Your task to perform on an android device: What's the weather like in Rio de Janeiro? Image 0: 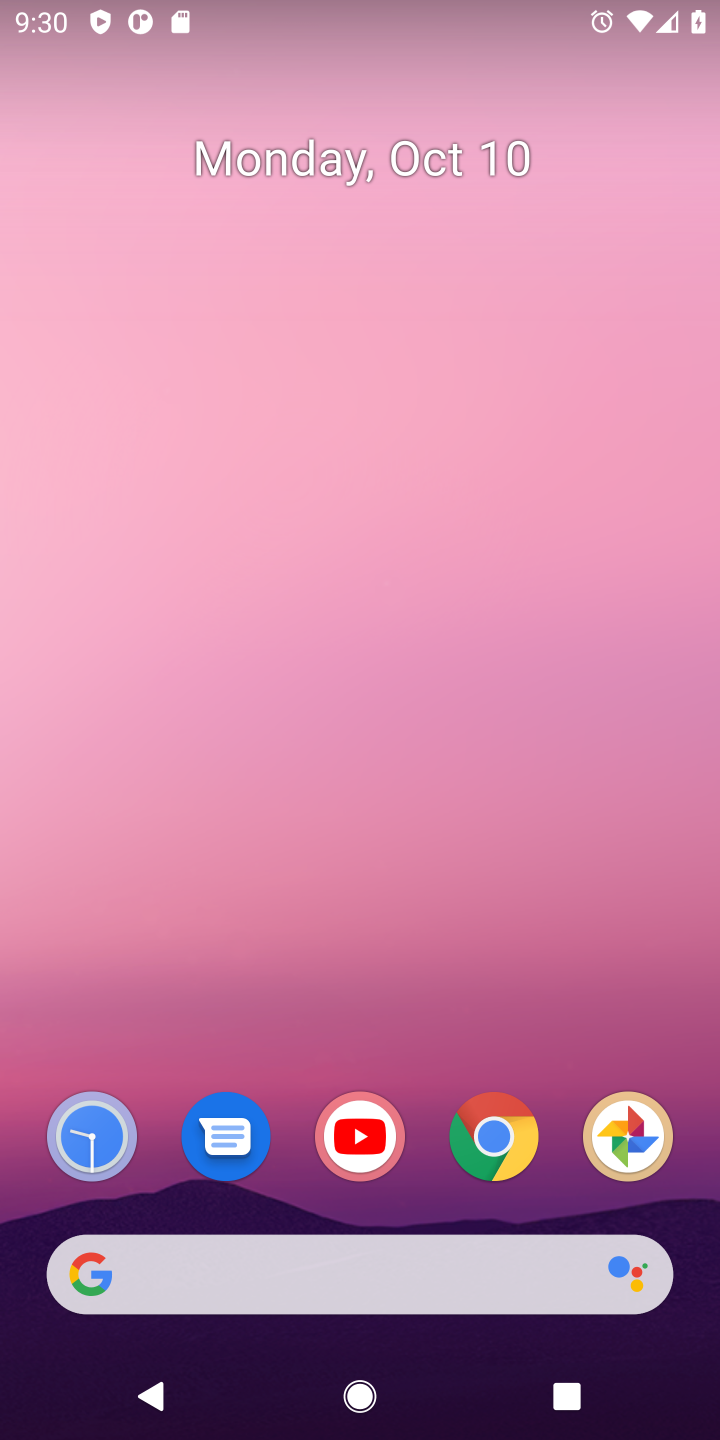
Step 0: click (505, 1122)
Your task to perform on an android device: What's the weather like in Rio de Janeiro? Image 1: 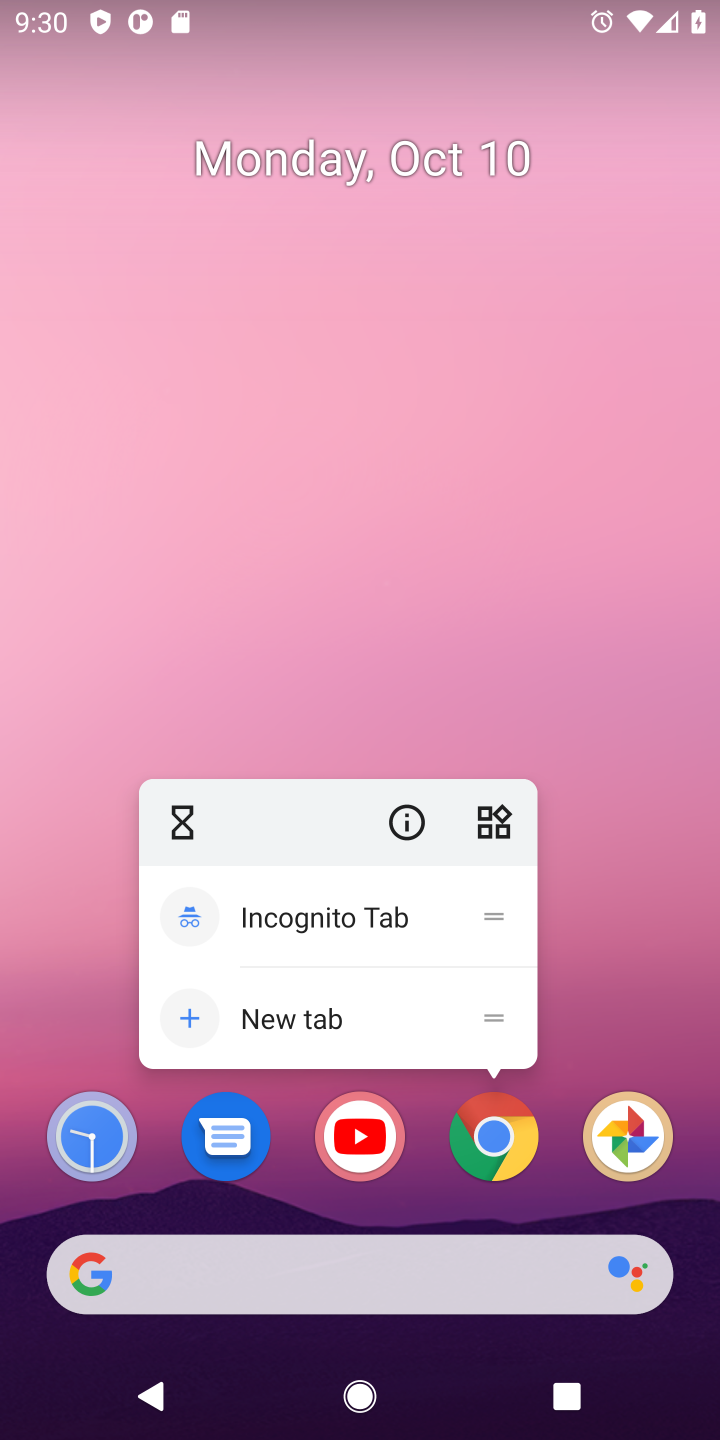
Step 1: click (512, 1155)
Your task to perform on an android device: What's the weather like in Rio de Janeiro? Image 2: 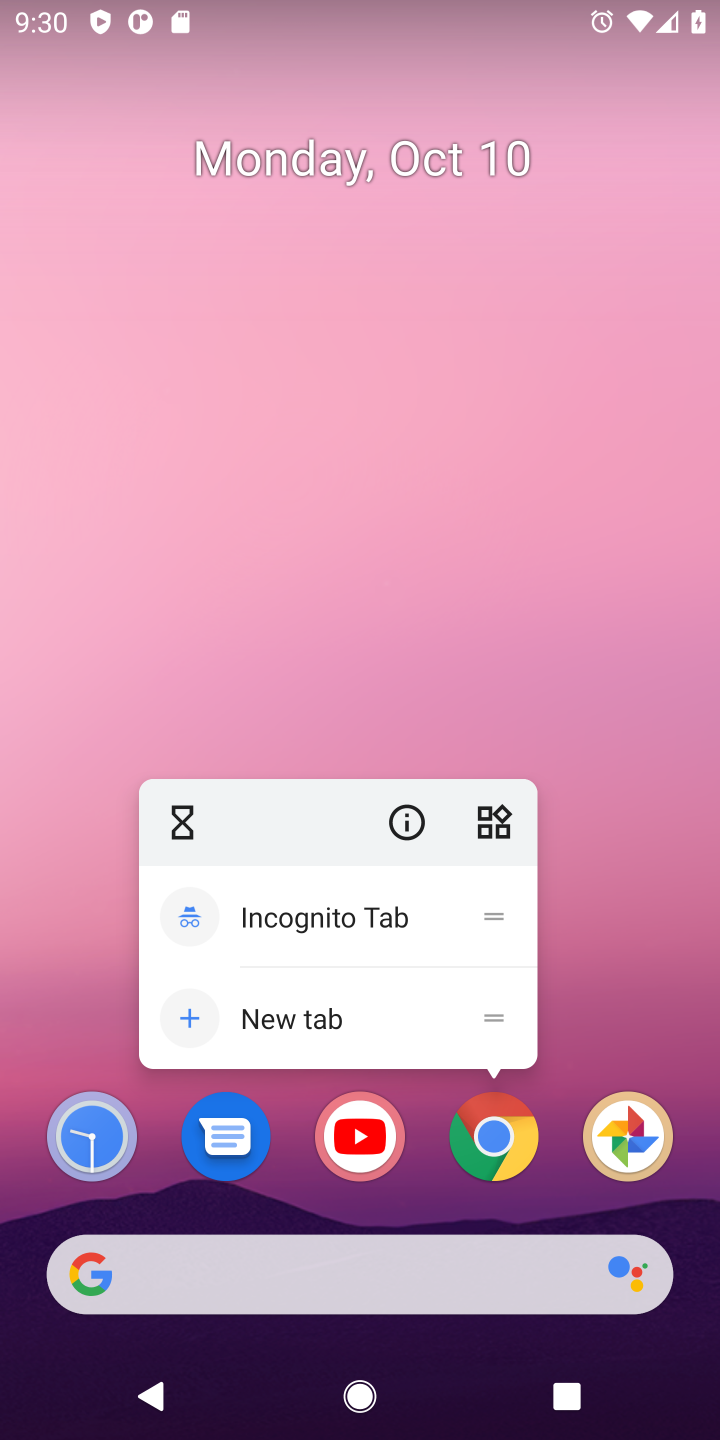
Step 2: click (512, 1155)
Your task to perform on an android device: What's the weather like in Rio de Janeiro? Image 3: 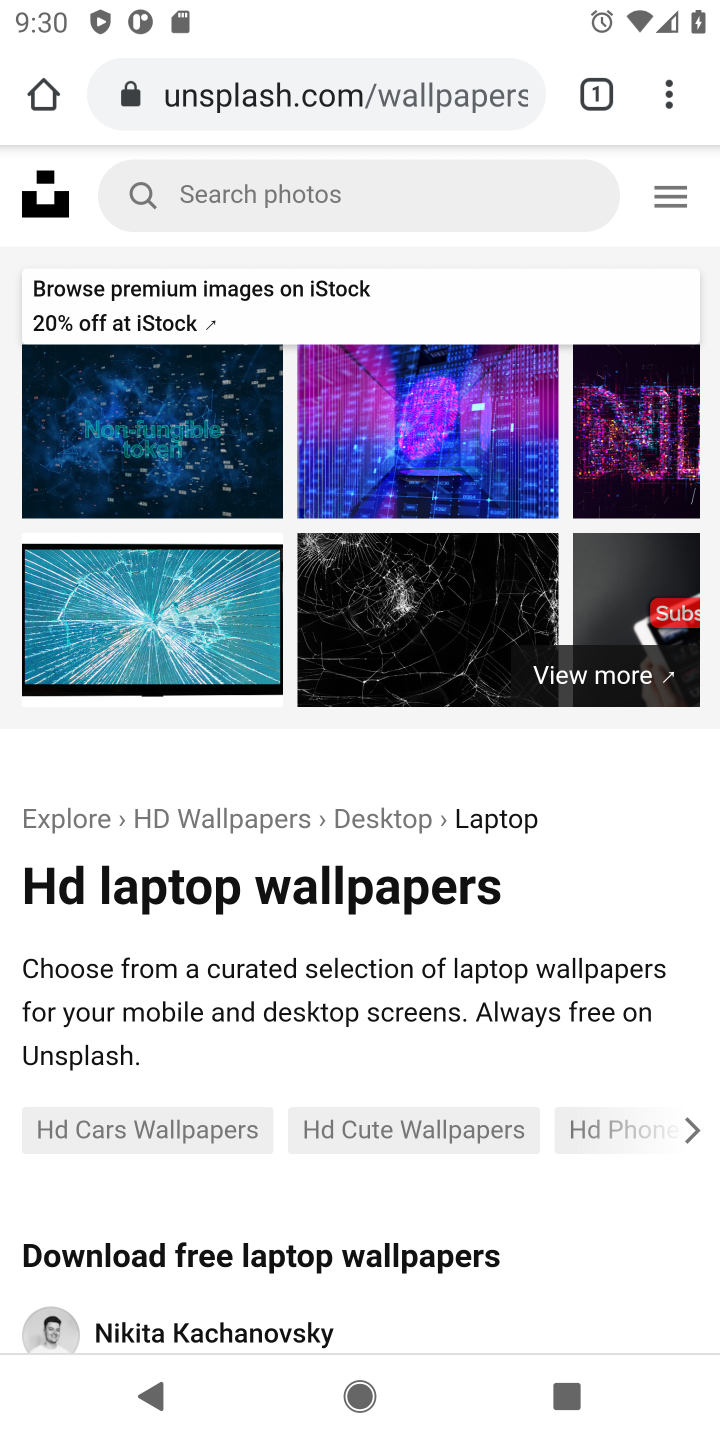
Step 3: click (391, 104)
Your task to perform on an android device: What's the weather like in Rio de Janeiro? Image 4: 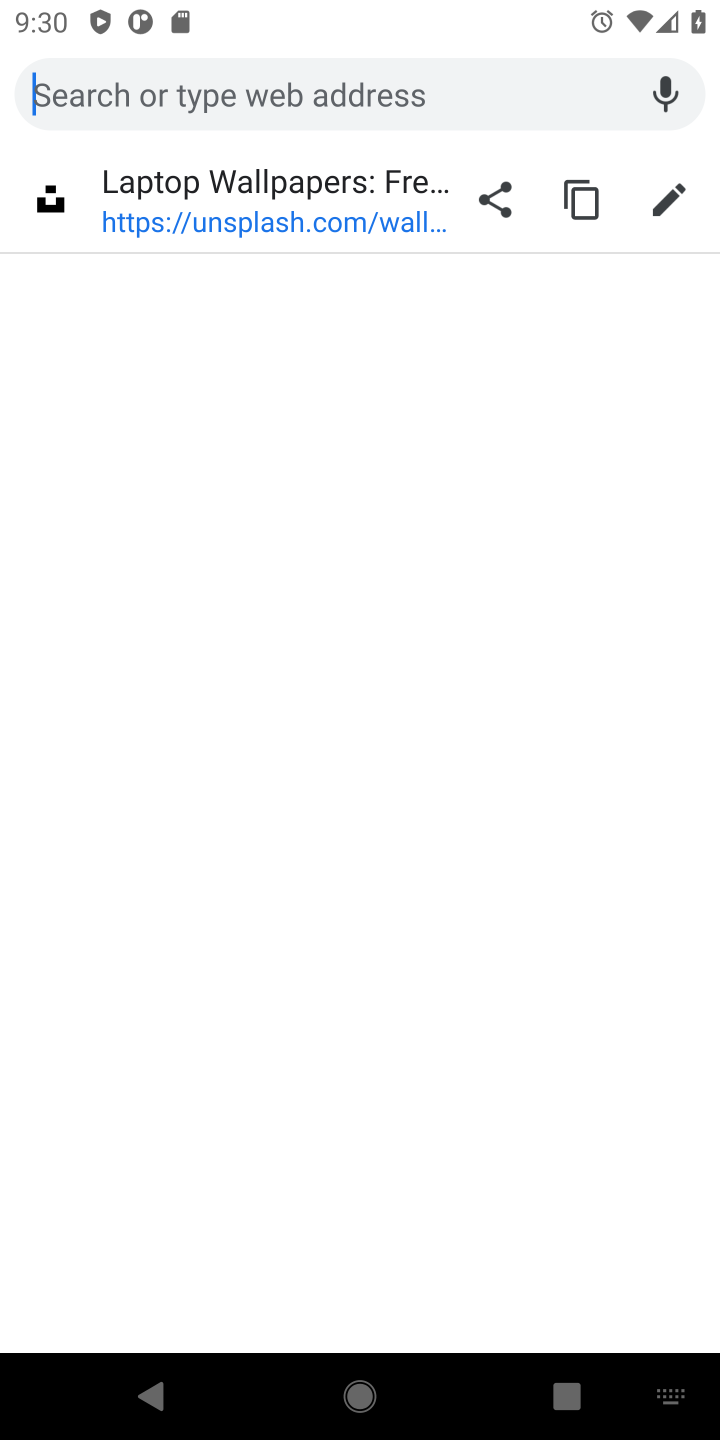
Step 4: type "weather like in Rio de Janeiro"
Your task to perform on an android device: What's the weather like in Rio de Janeiro? Image 5: 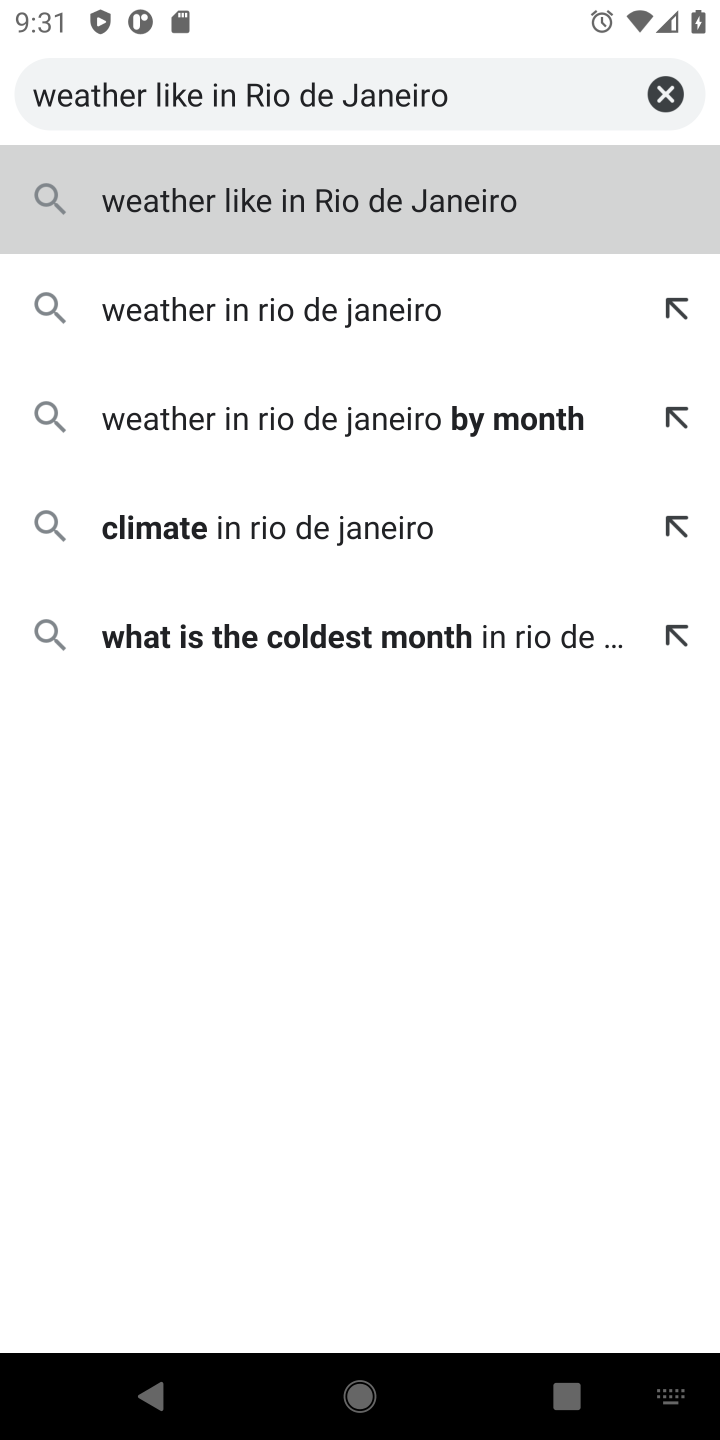
Step 5: click (304, 206)
Your task to perform on an android device: What's the weather like in Rio de Janeiro? Image 6: 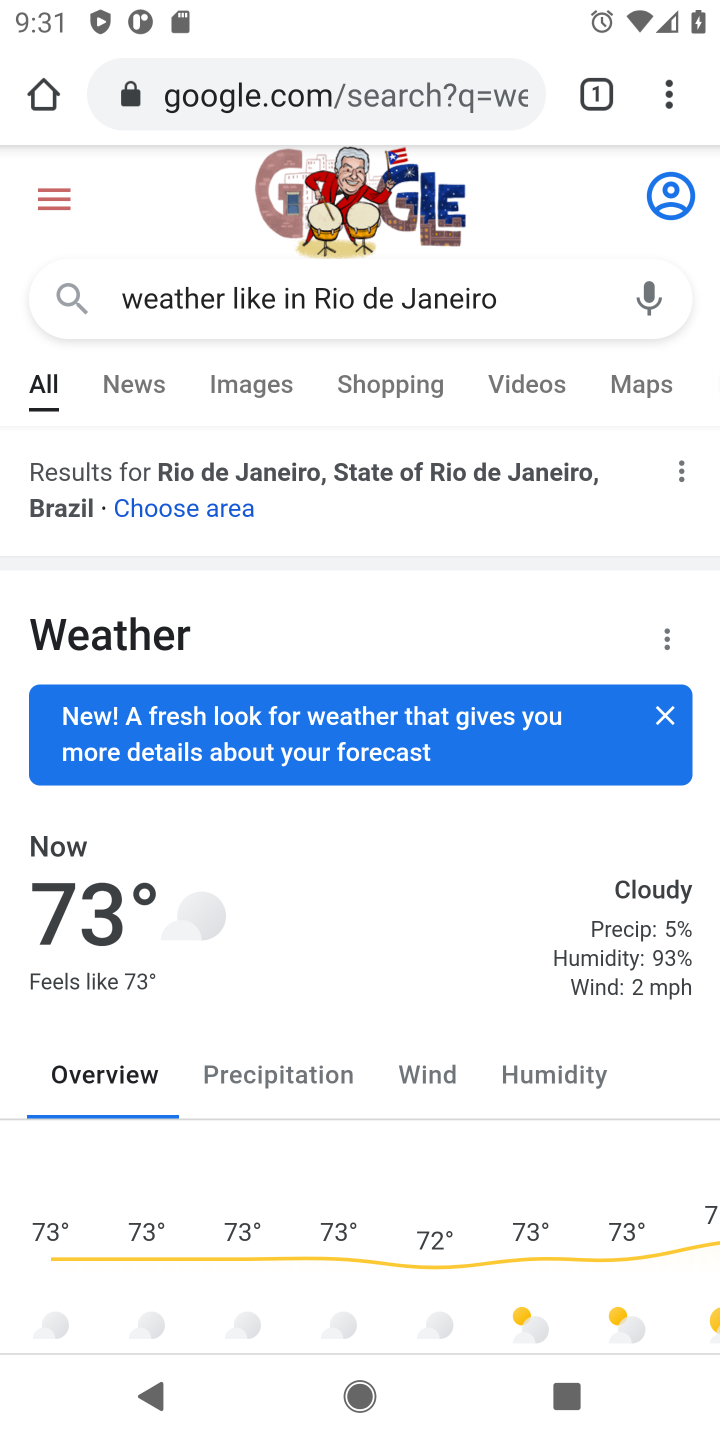
Step 6: task complete